Your task to perform on an android device: Go to calendar. Show me events next week Image 0: 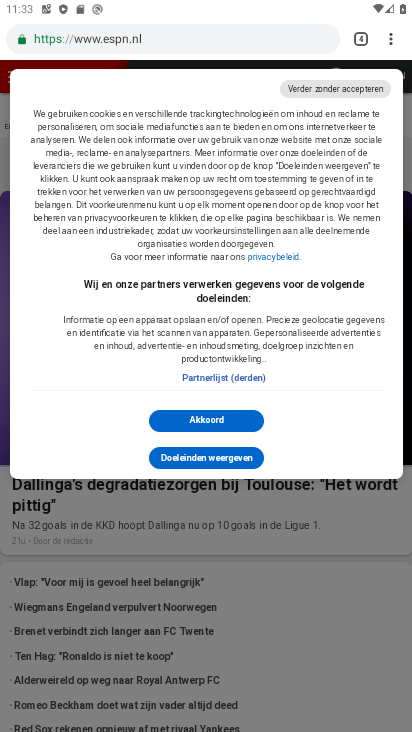
Step 0: press home button
Your task to perform on an android device: Go to calendar. Show me events next week Image 1: 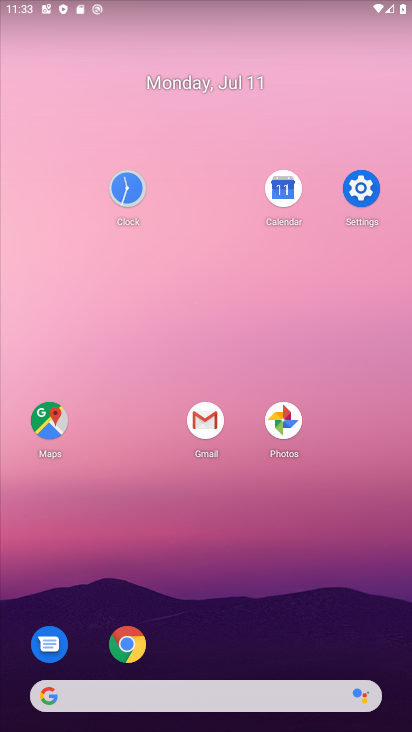
Step 1: click (297, 189)
Your task to perform on an android device: Go to calendar. Show me events next week Image 2: 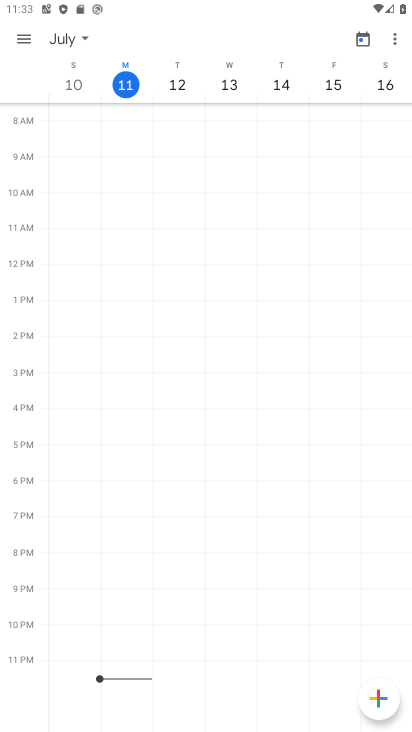
Step 2: task complete